Your task to perform on an android device: toggle pop-ups in chrome Image 0: 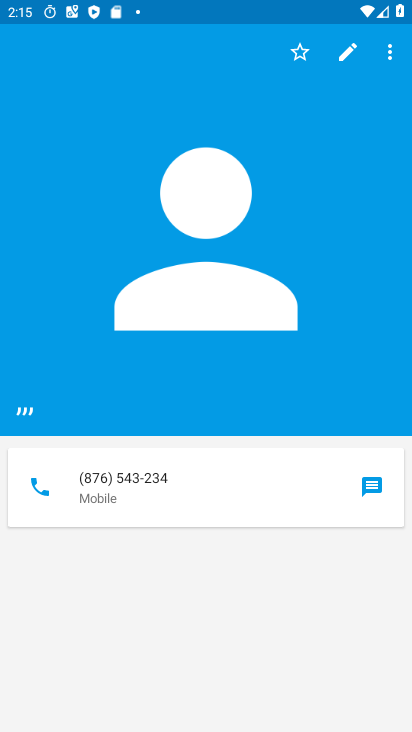
Step 0: drag from (227, 549) to (302, 194)
Your task to perform on an android device: toggle pop-ups in chrome Image 1: 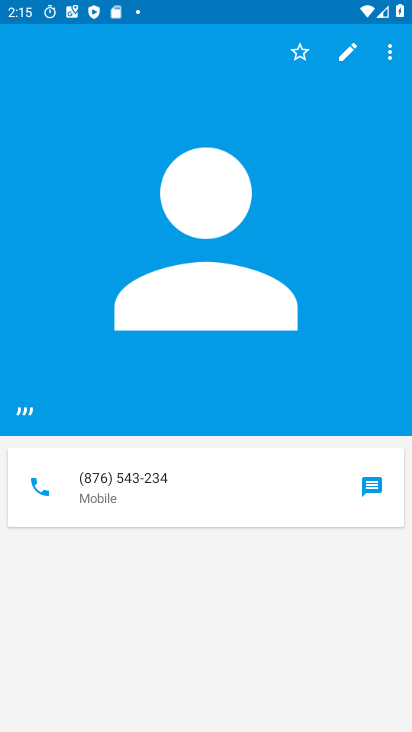
Step 1: press home button
Your task to perform on an android device: toggle pop-ups in chrome Image 2: 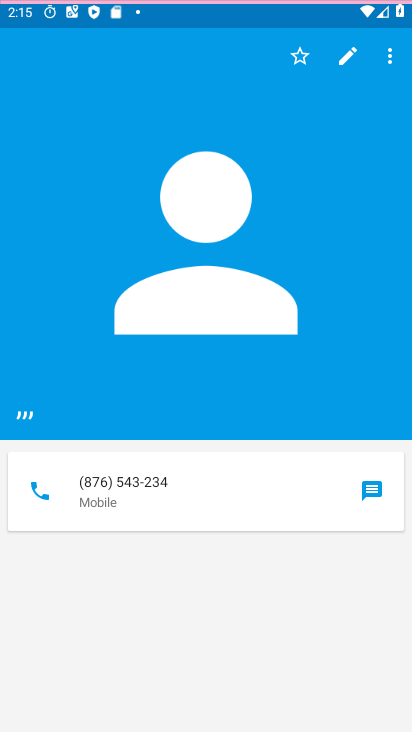
Step 2: drag from (266, 598) to (392, 46)
Your task to perform on an android device: toggle pop-ups in chrome Image 3: 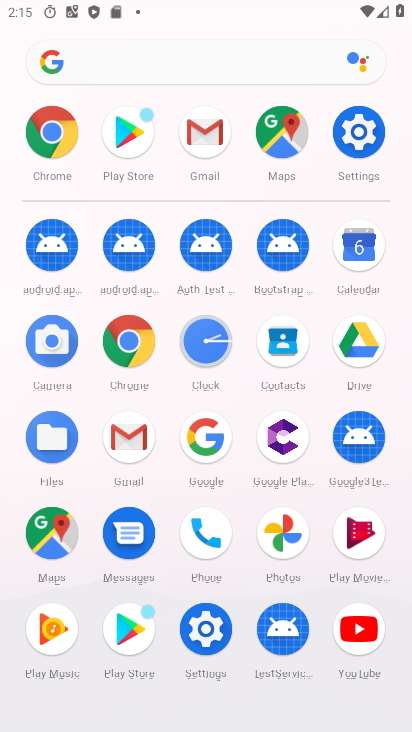
Step 3: click (113, 343)
Your task to perform on an android device: toggle pop-ups in chrome Image 4: 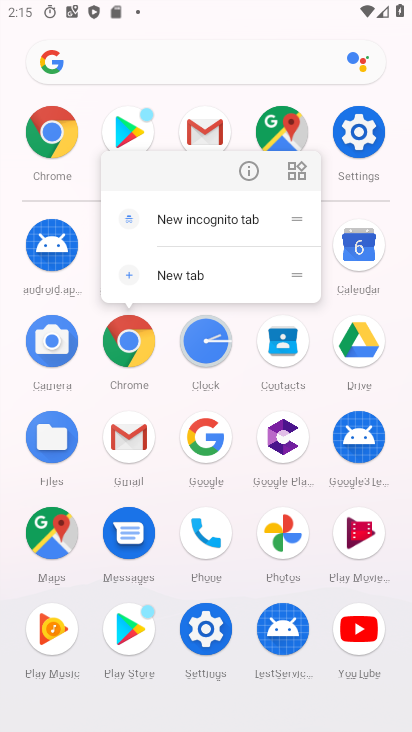
Step 4: click (261, 162)
Your task to perform on an android device: toggle pop-ups in chrome Image 5: 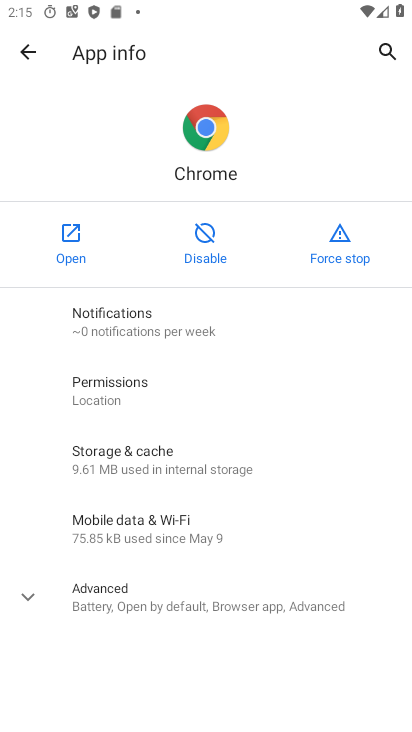
Step 5: click (70, 232)
Your task to perform on an android device: toggle pop-ups in chrome Image 6: 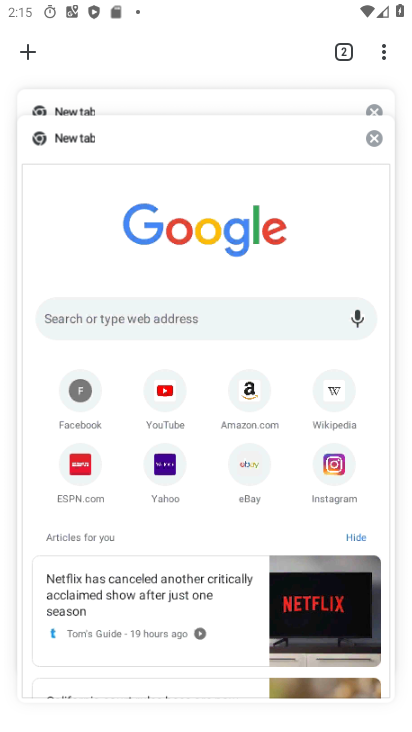
Step 6: click (385, 46)
Your task to perform on an android device: toggle pop-ups in chrome Image 7: 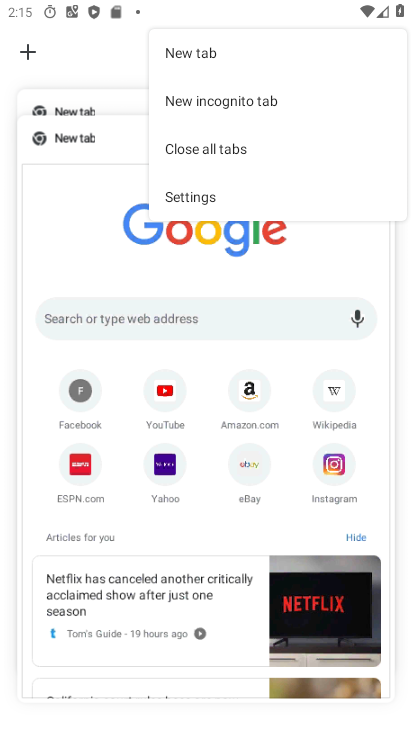
Step 7: click (218, 195)
Your task to perform on an android device: toggle pop-ups in chrome Image 8: 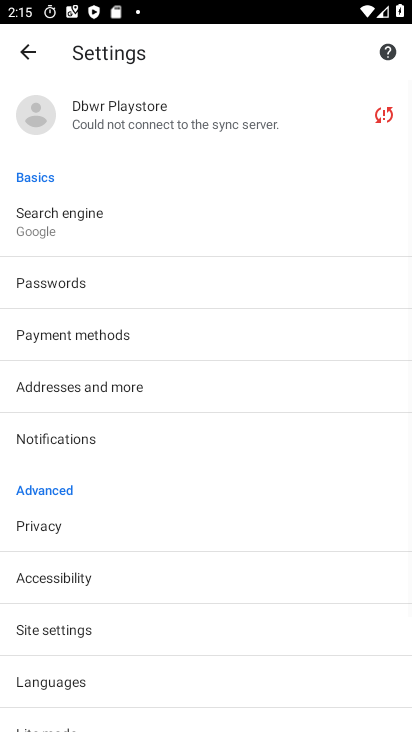
Step 8: drag from (189, 495) to (242, 207)
Your task to perform on an android device: toggle pop-ups in chrome Image 9: 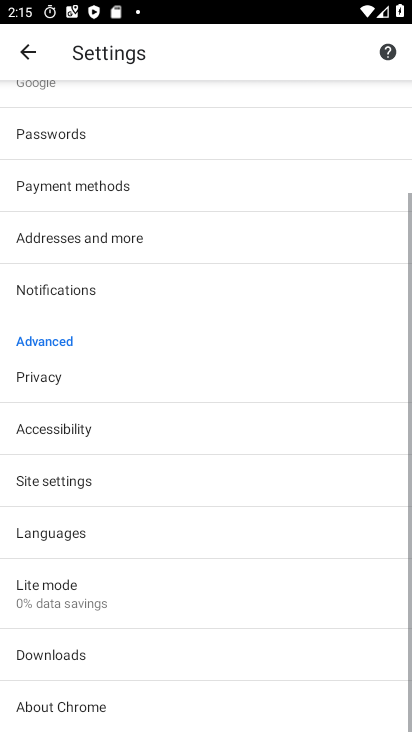
Step 9: click (49, 477)
Your task to perform on an android device: toggle pop-ups in chrome Image 10: 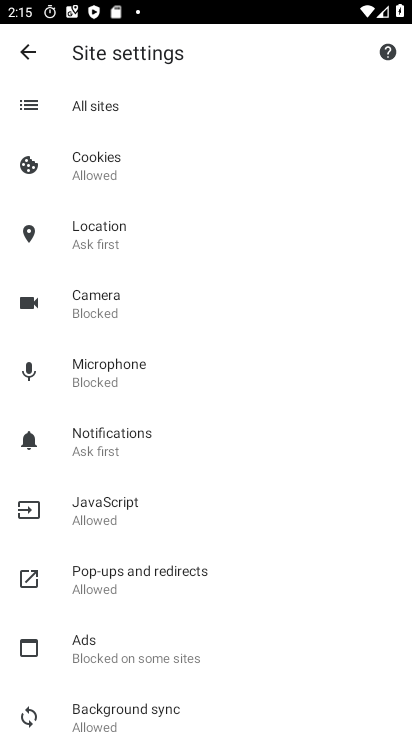
Step 10: click (153, 565)
Your task to perform on an android device: toggle pop-ups in chrome Image 11: 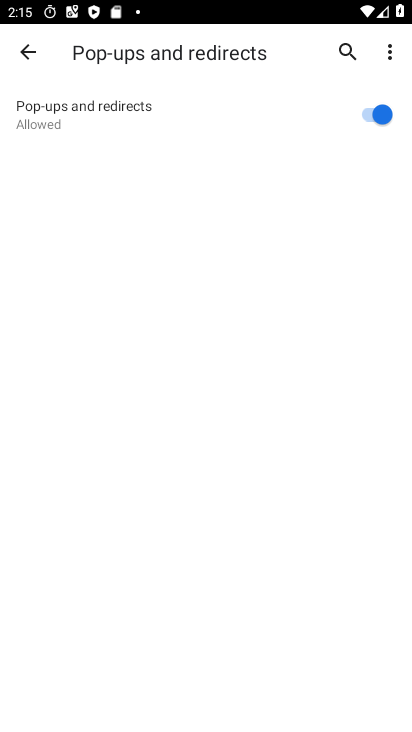
Step 11: click (354, 114)
Your task to perform on an android device: toggle pop-ups in chrome Image 12: 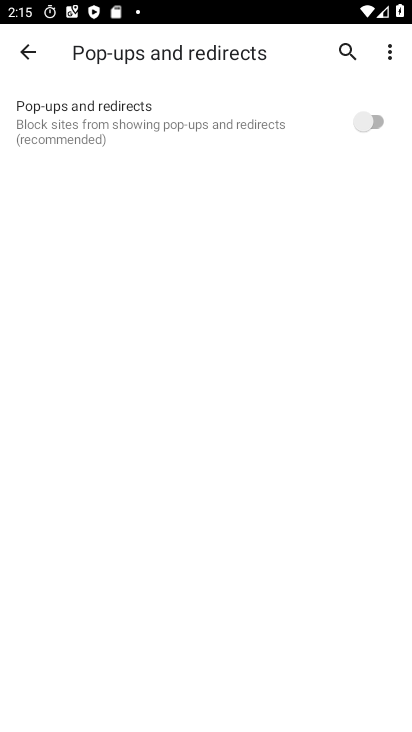
Step 12: task complete